Your task to perform on an android device: change keyboard looks Image 0: 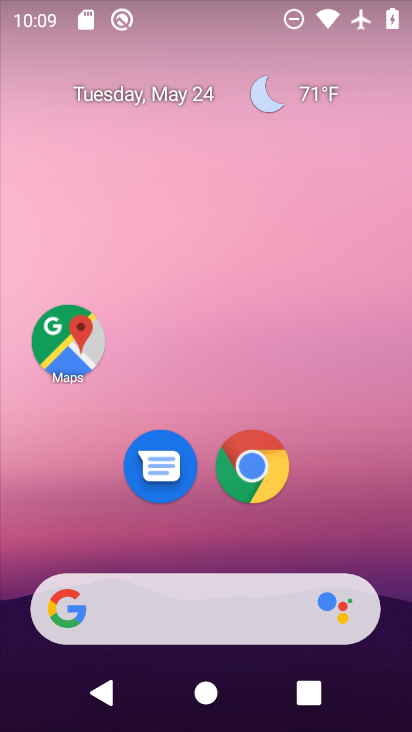
Step 0: drag from (189, 532) to (193, 2)
Your task to perform on an android device: change keyboard looks Image 1: 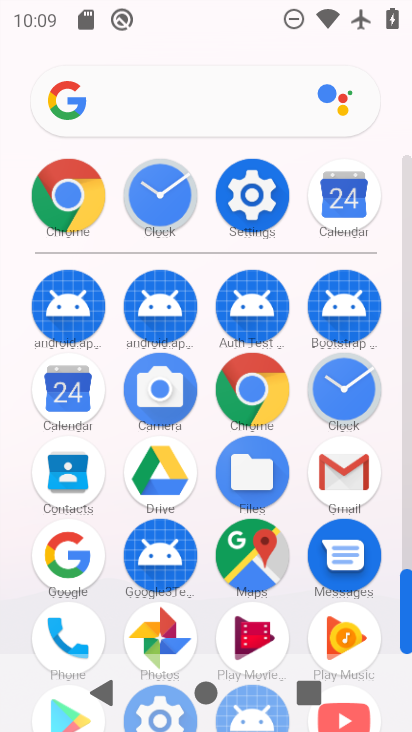
Step 1: click (272, 215)
Your task to perform on an android device: change keyboard looks Image 2: 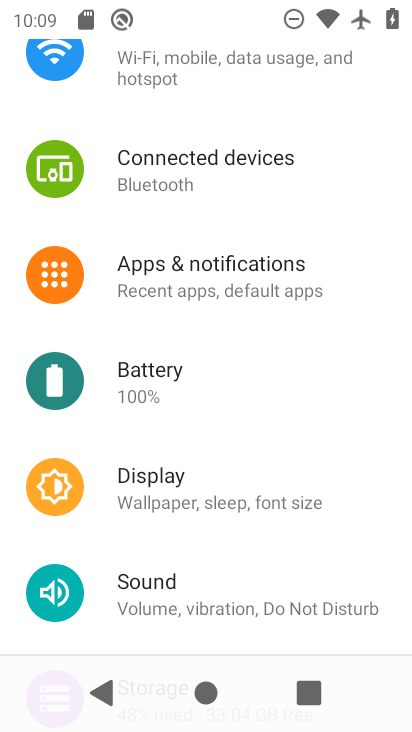
Step 2: drag from (140, 595) to (162, 169)
Your task to perform on an android device: change keyboard looks Image 3: 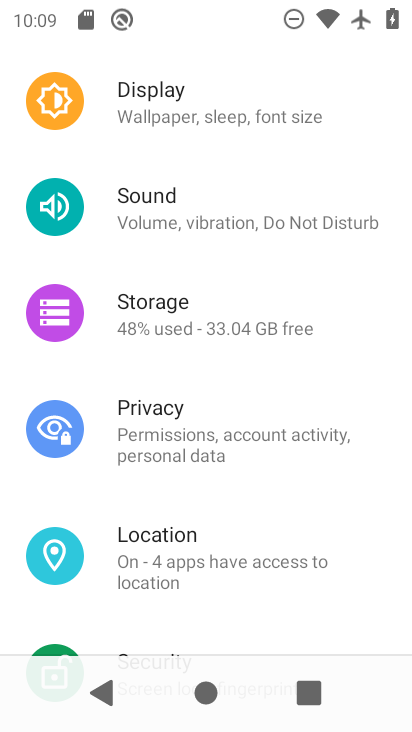
Step 3: drag from (174, 554) to (224, 38)
Your task to perform on an android device: change keyboard looks Image 4: 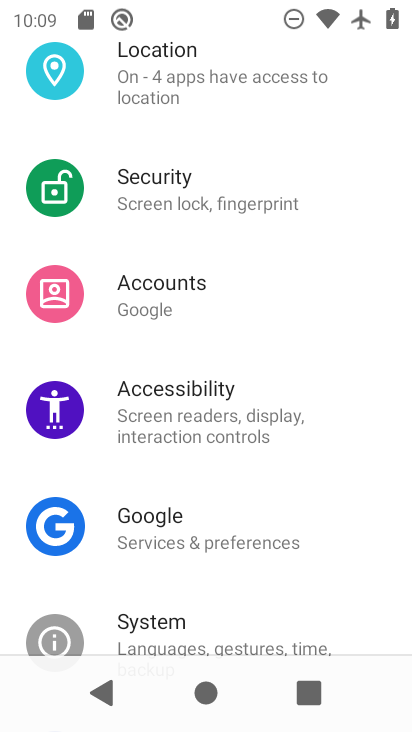
Step 4: drag from (163, 495) to (188, 8)
Your task to perform on an android device: change keyboard looks Image 5: 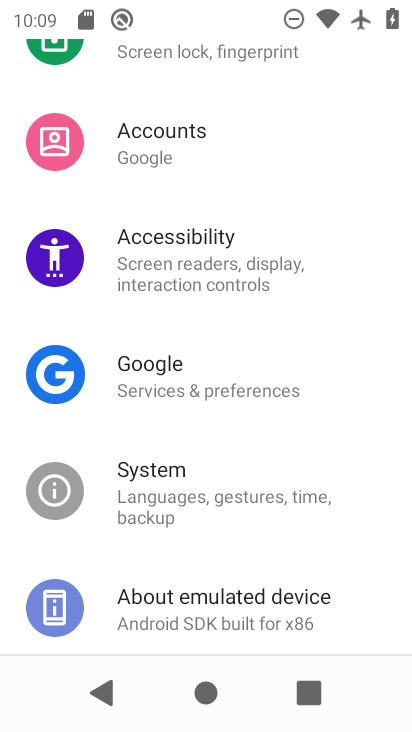
Step 5: click (172, 483)
Your task to perform on an android device: change keyboard looks Image 6: 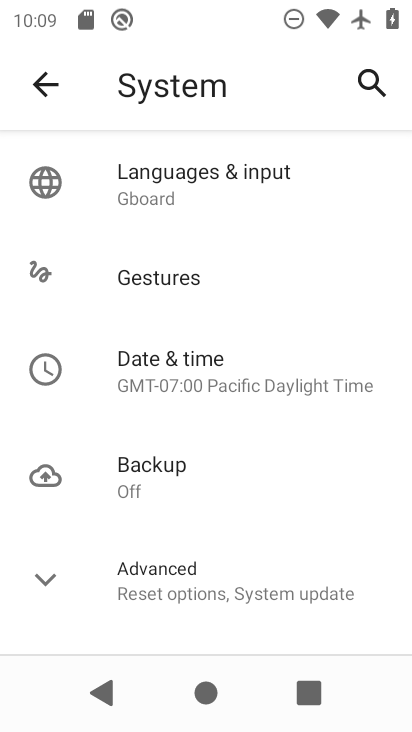
Step 6: click (200, 193)
Your task to perform on an android device: change keyboard looks Image 7: 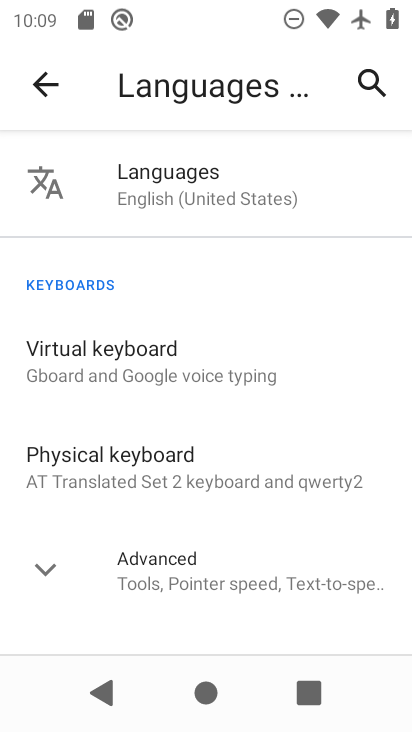
Step 7: click (131, 374)
Your task to perform on an android device: change keyboard looks Image 8: 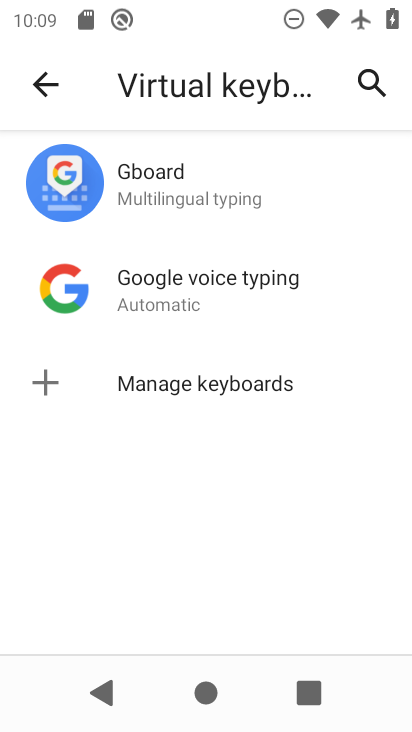
Step 8: click (197, 212)
Your task to perform on an android device: change keyboard looks Image 9: 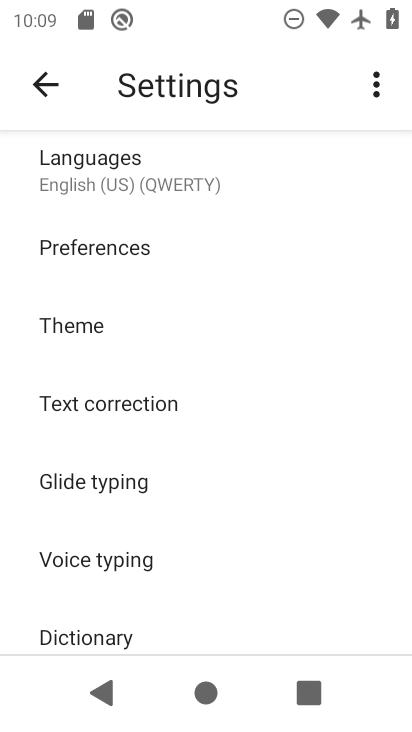
Step 9: click (108, 332)
Your task to perform on an android device: change keyboard looks Image 10: 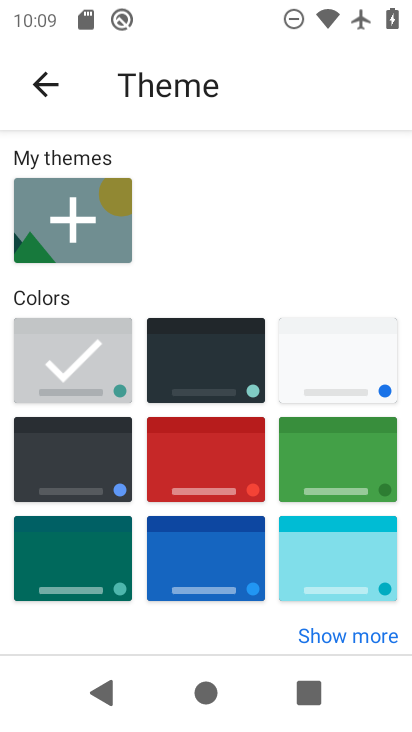
Step 10: click (181, 369)
Your task to perform on an android device: change keyboard looks Image 11: 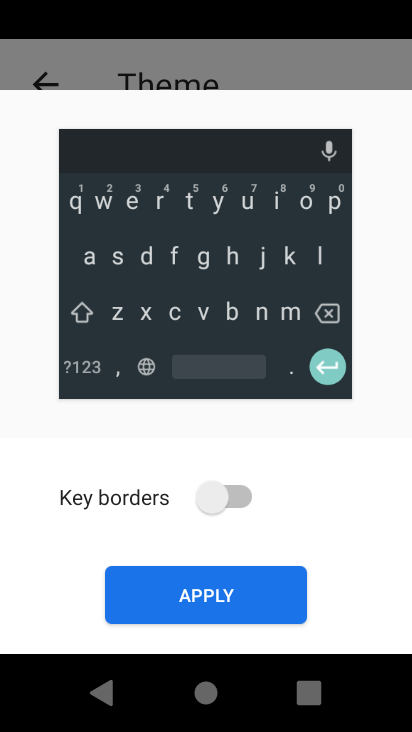
Step 11: click (178, 602)
Your task to perform on an android device: change keyboard looks Image 12: 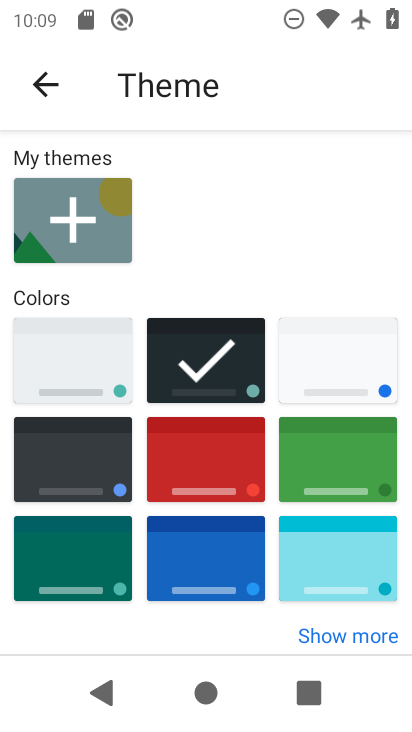
Step 12: task complete